Your task to perform on an android device: Open CNN.com Image 0: 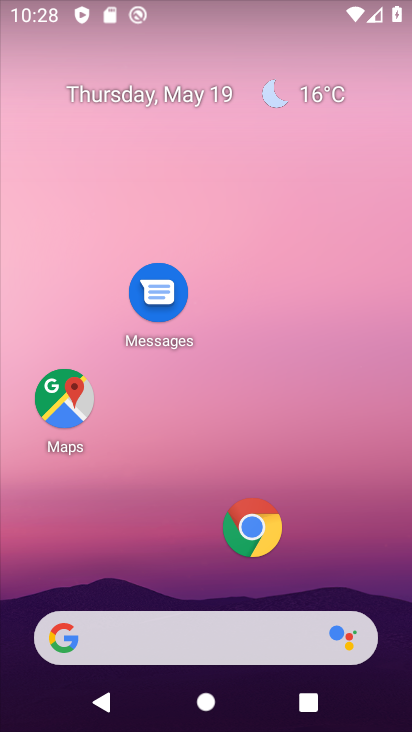
Step 0: drag from (195, 444) to (211, 201)
Your task to perform on an android device: Open CNN.com Image 1: 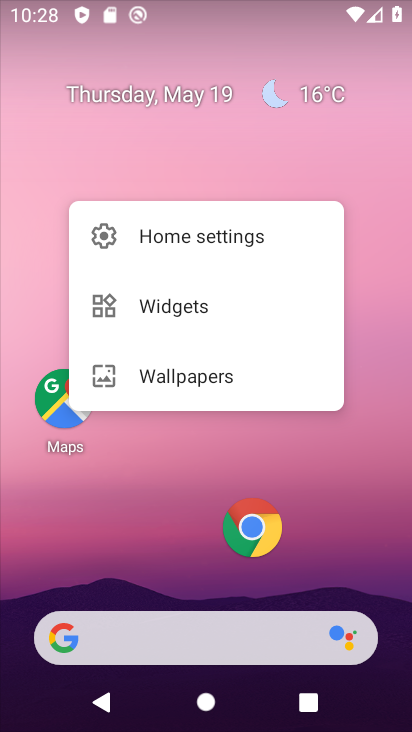
Step 1: click (168, 532)
Your task to perform on an android device: Open CNN.com Image 2: 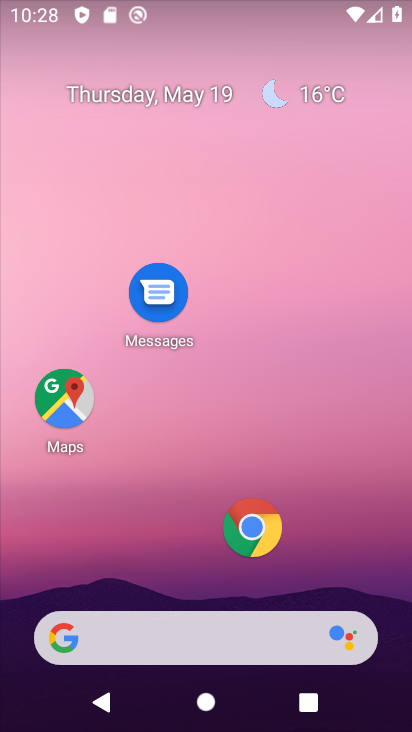
Step 2: click (163, 569)
Your task to perform on an android device: Open CNN.com Image 3: 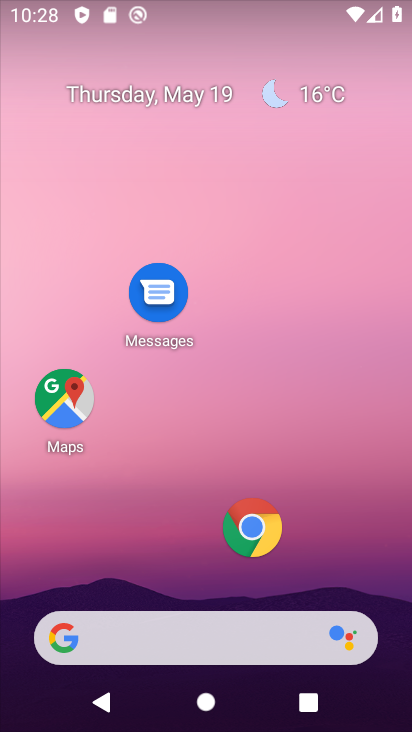
Step 3: drag from (174, 610) to (191, 215)
Your task to perform on an android device: Open CNN.com Image 4: 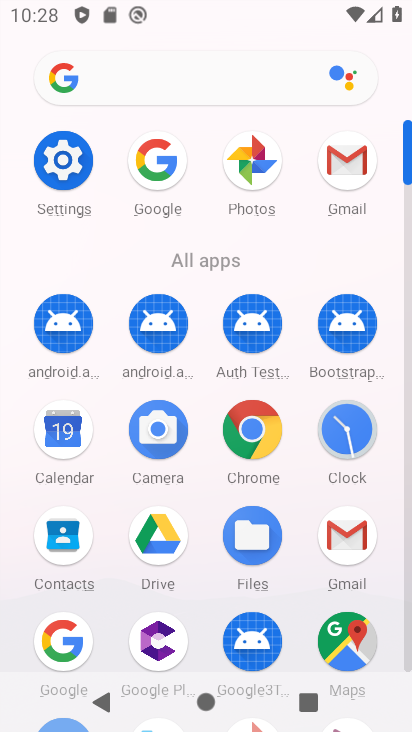
Step 4: click (57, 158)
Your task to perform on an android device: Open CNN.com Image 5: 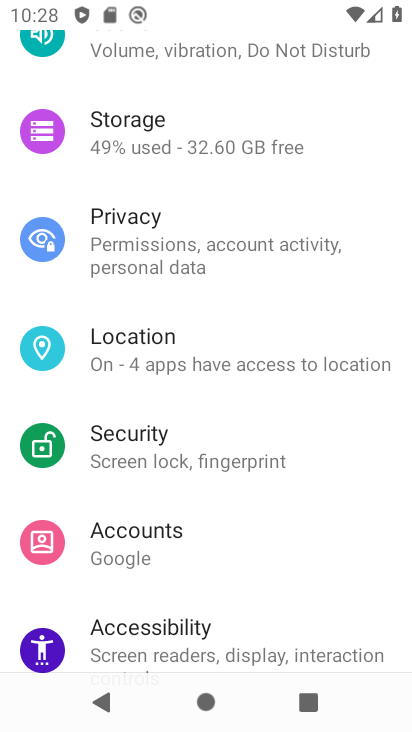
Step 5: task complete